Your task to perform on an android device: Go to privacy settings Image 0: 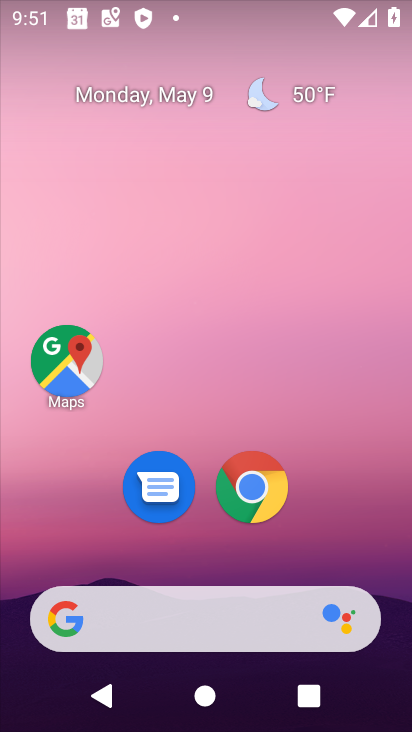
Step 0: press home button
Your task to perform on an android device: Go to privacy settings Image 1: 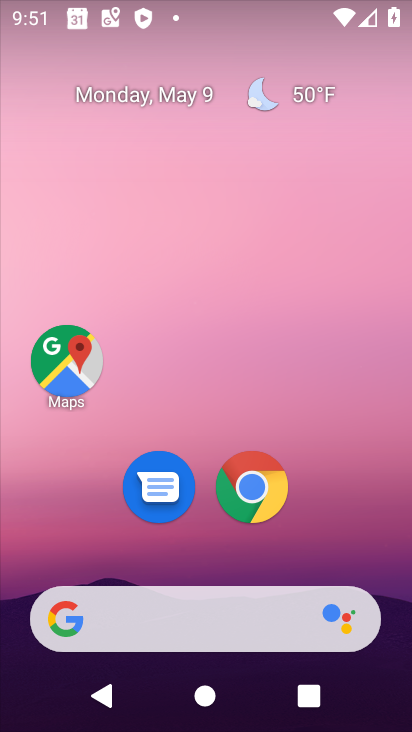
Step 1: drag from (27, 655) to (371, 85)
Your task to perform on an android device: Go to privacy settings Image 2: 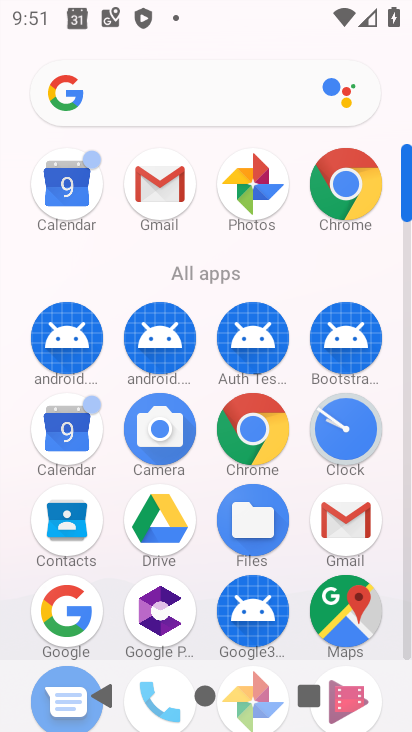
Step 2: drag from (14, 615) to (332, 190)
Your task to perform on an android device: Go to privacy settings Image 3: 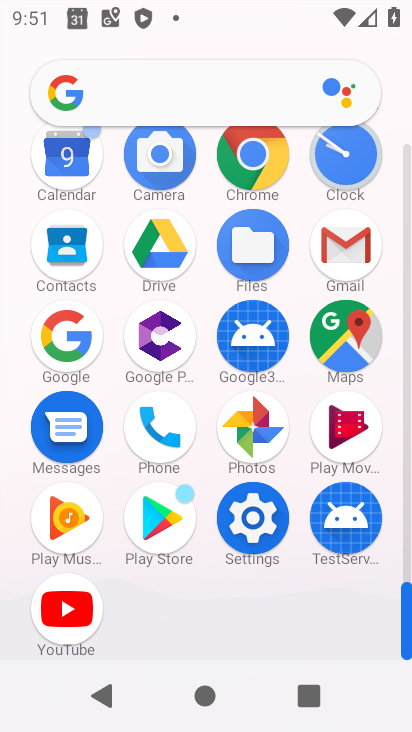
Step 3: click (259, 509)
Your task to perform on an android device: Go to privacy settings Image 4: 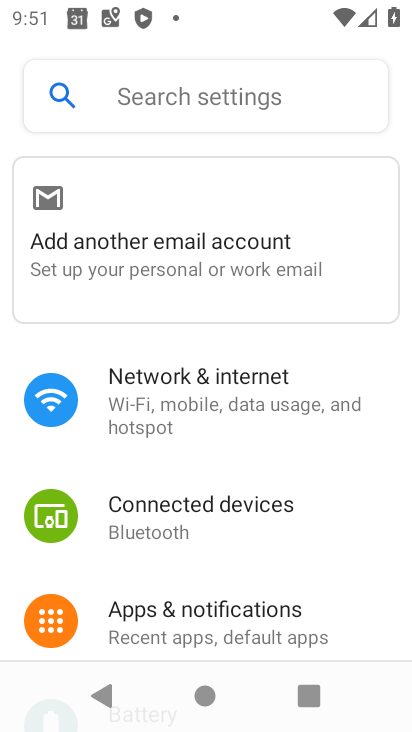
Step 4: drag from (45, 519) to (388, 110)
Your task to perform on an android device: Go to privacy settings Image 5: 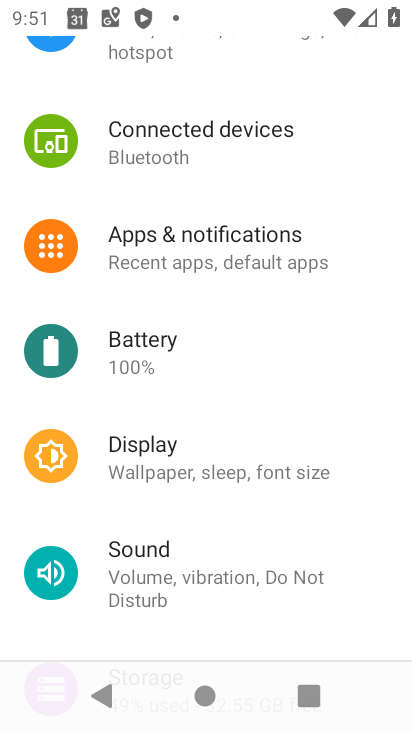
Step 5: drag from (134, 594) to (329, 217)
Your task to perform on an android device: Go to privacy settings Image 6: 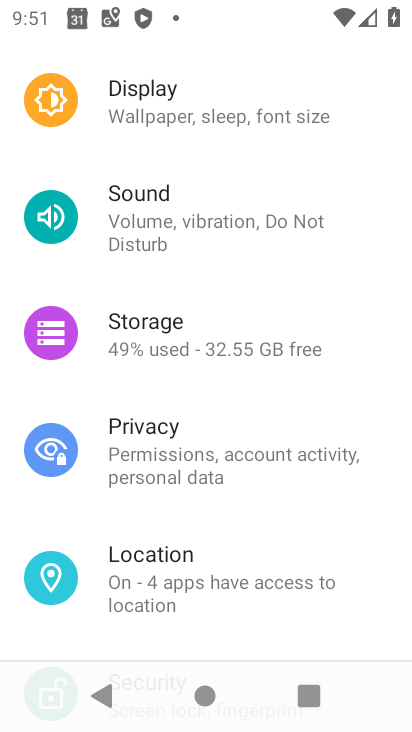
Step 6: click (170, 453)
Your task to perform on an android device: Go to privacy settings Image 7: 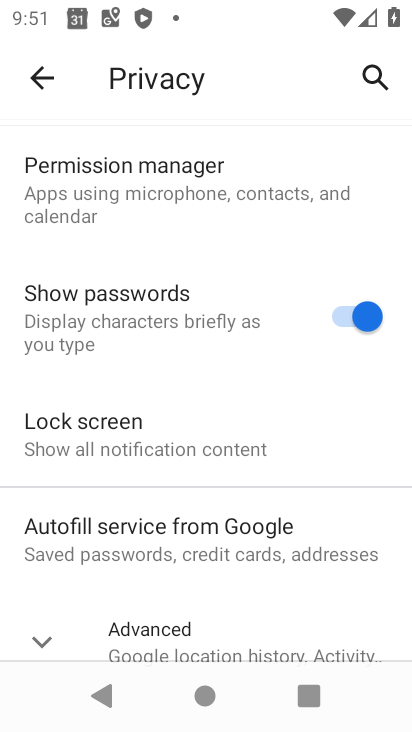
Step 7: task complete